Your task to perform on an android device: Open the web browser Image 0: 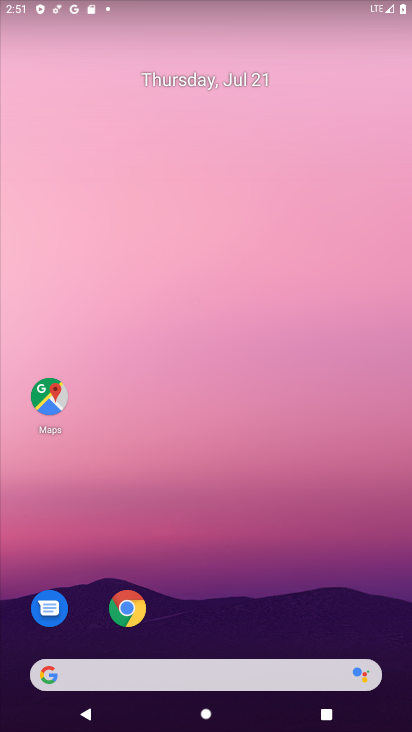
Step 0: click (215, 664)
Your task to perform on an android device: Open the web browser Image 1: 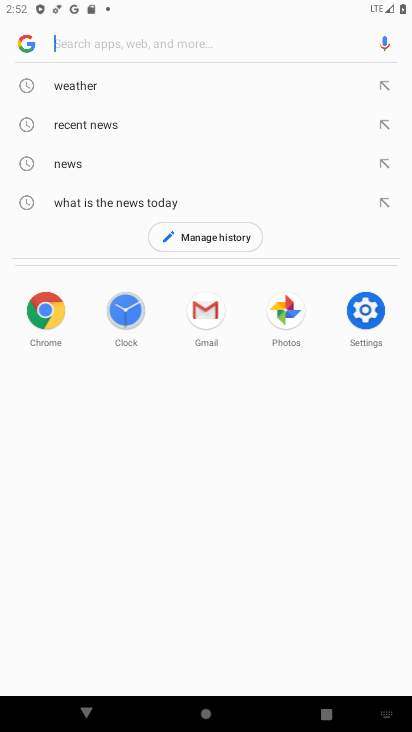
Step 1: task complete